Your task to perform on an android device: Search for sushi restaurants on Maps Image 0: 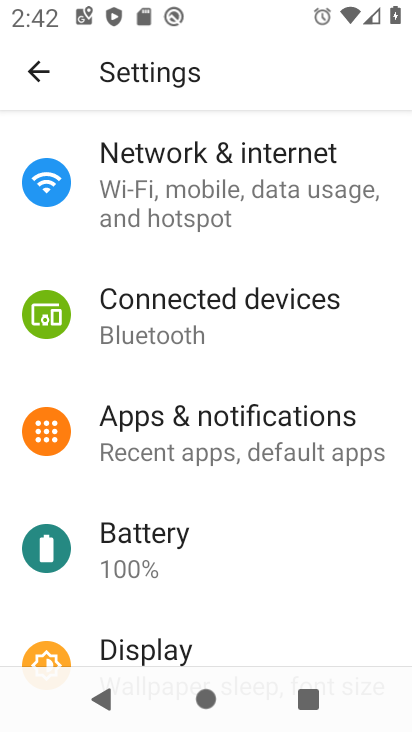
Step 0: press home button
Your task to perform on an android device: Search for sushi restaurants on Maps Image 1: 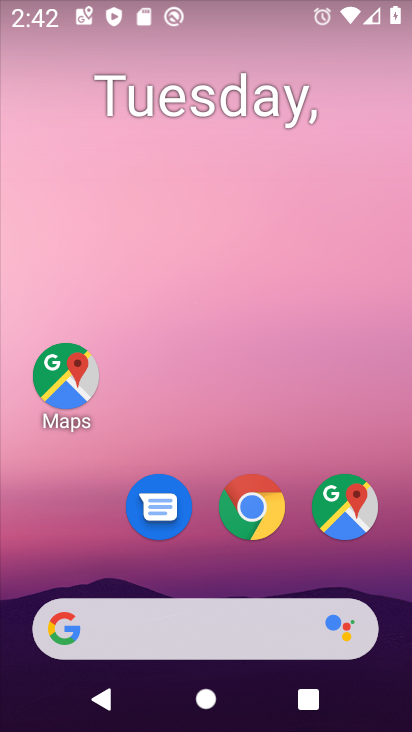
Step 1: click (248, 489)
Your task to perform on an android device: Search for sushi restaurants on Maps Image 2: 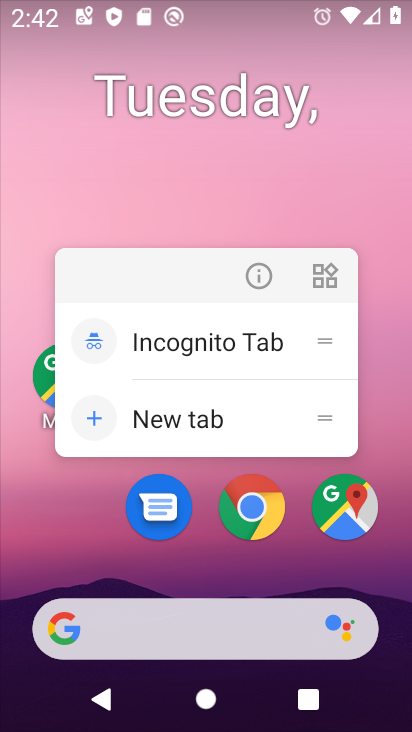
Step 2: click (346, 506)
Your task to perform on an android device: Search for sushi restaurants on Maps Image 3: 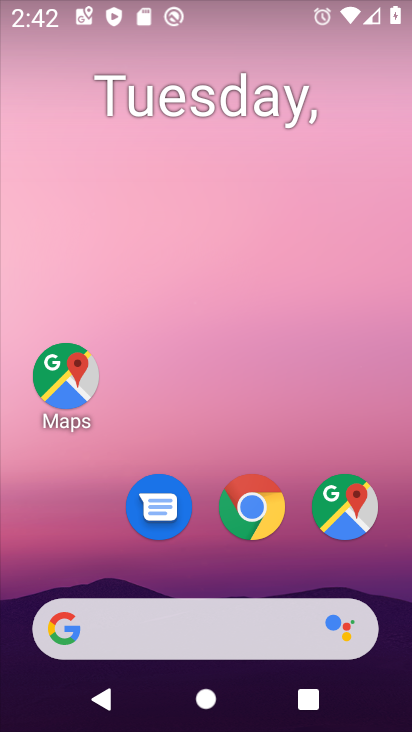
Step 3: click (346, 506)
Your task to perform on an android device: Search for sushi restaurants on Maps Image 4: 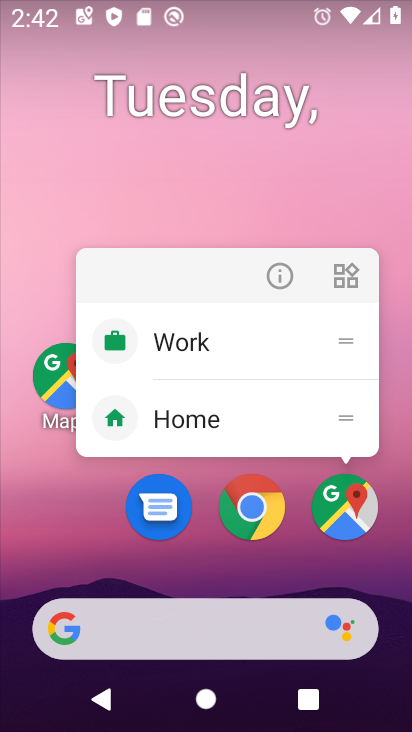
Step 4: click (342, 497)
Your task to perform on an android device: Search for sushi restaurants on Maps Image 5: 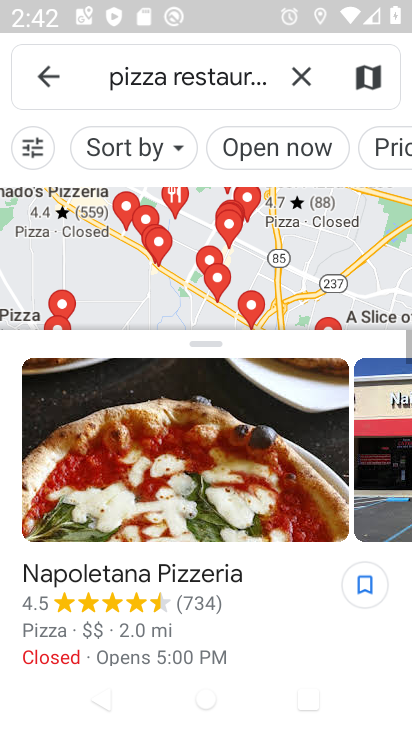
Step 5: click (304, 77)
Your task to perform on an android device: Search for sushi restaurants on Maps Image 6: 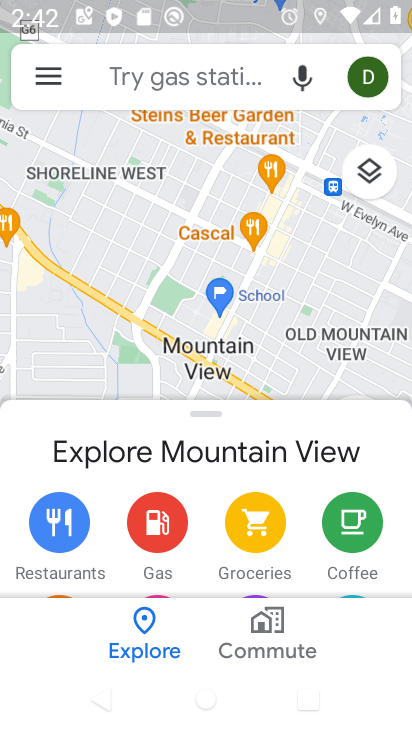
Step 6: click (185, 69)
Your task to perform on an android device: Search for sushi restaurants on Maps Image 7: 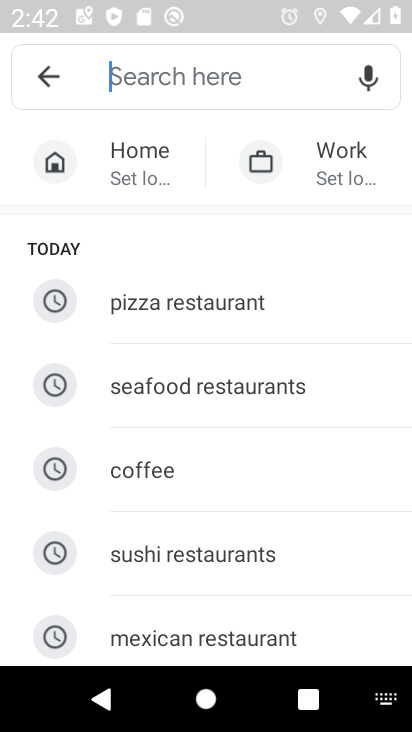
Step 7: click (187, 523)
Your task to perform on an android device: Search for sushi restaurants on Maps Image 8: 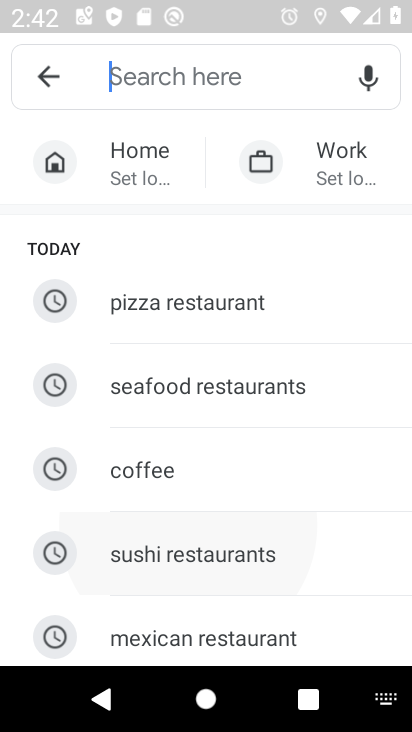
Step 8: click (186, 532)
Your task to perform on an android device: Search for sushi restaurants on Maps Image 9: 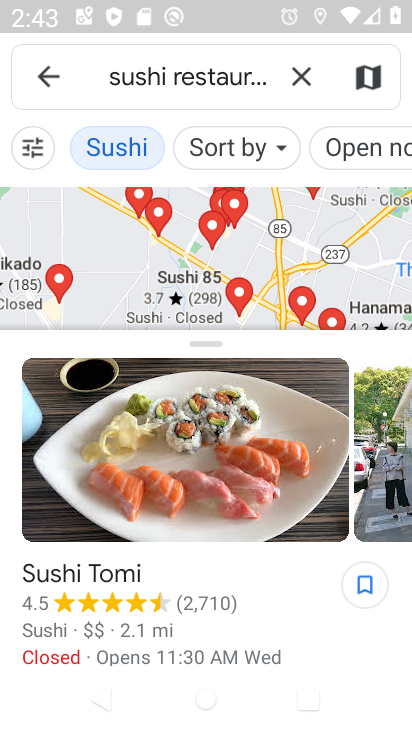
Step 9: task complete